Your task to perform on an android device: turn on priority inbox in the gmail app Image 0: 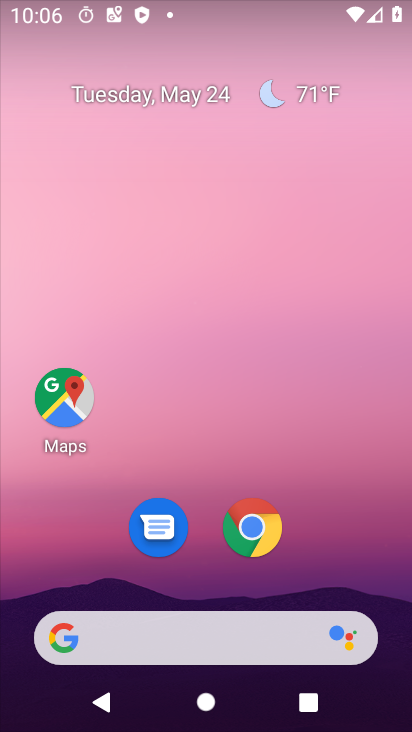
Step 0: drag from (221, 582) to (265, 57)
Your task to perform on an android device: turn on priority inbox in the gmail app Image 1: 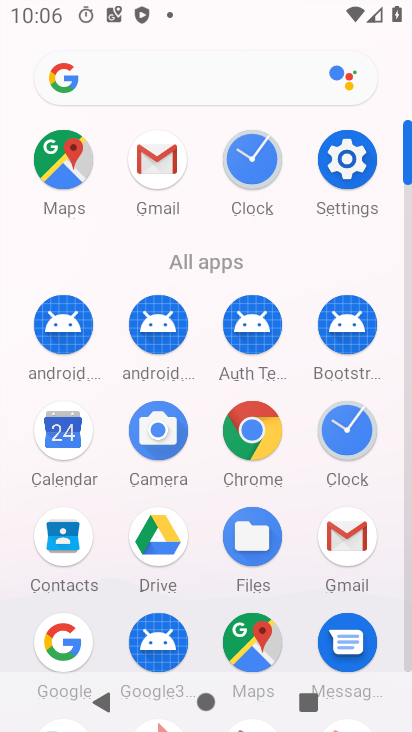
Step 1: click (163, 166)
Your task to perform on an android device: turn on priority inbox in the gmail app Image 2: 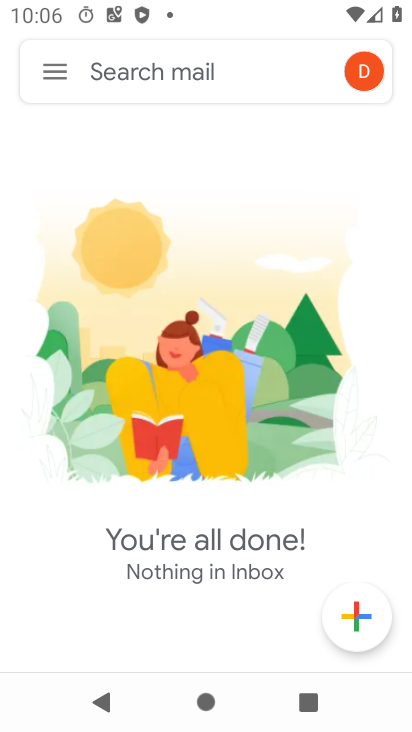
Step 2: click (53, 72)
Your task to perform on an android device: turn on priority inbox in the gmail app Image 3: 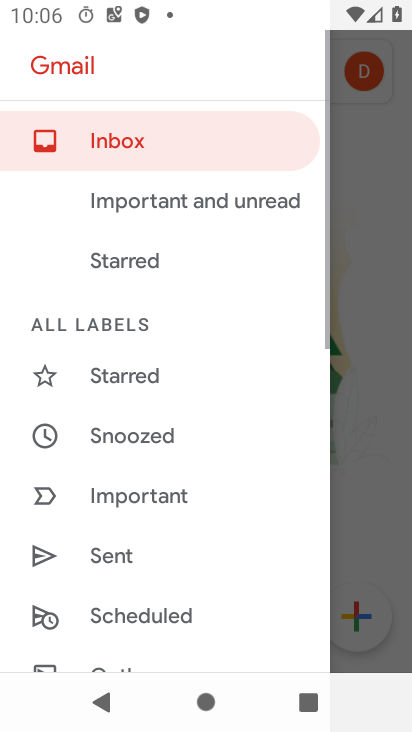
Step 3: drag from (150, 581) to (163, 205)
Your task to perform on an android device: turn on priority inbox in the gmail app Image 4: 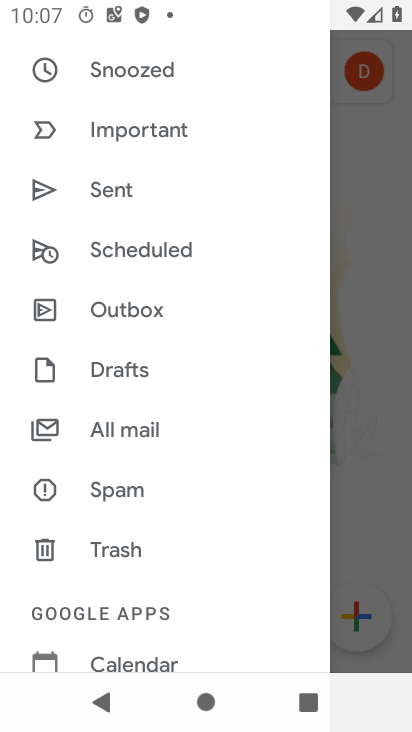
Step 4: drag from (149, 618) to (134, 315)
Your task to perform on an android device: turn on priority inbox in the gmail app Image 5: 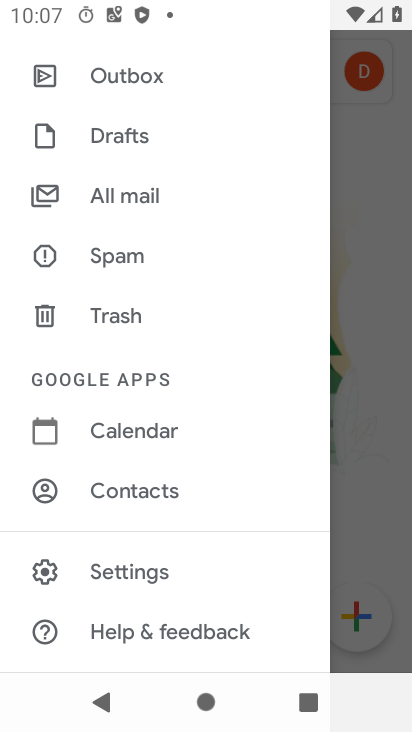
Step 5: click (139, 571)
Your task to perform on an android device: turn on priority inbox in the gmail app Image 6: 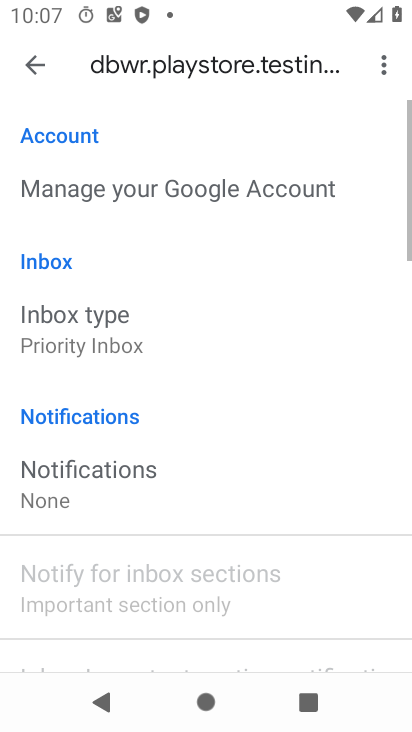
Step 6: task complete